Your task to perform on an android device: Go to Google Image 0: 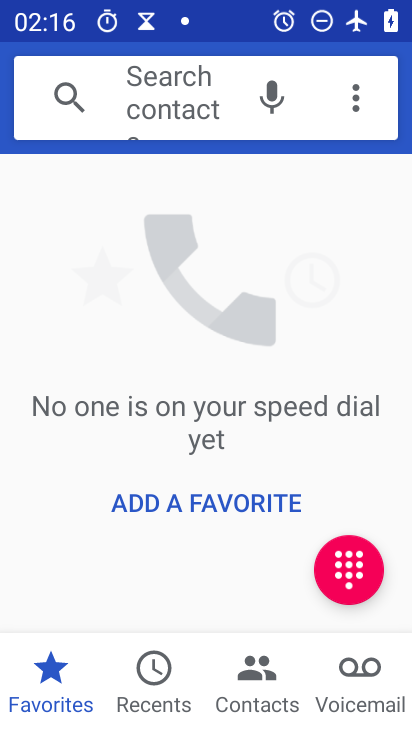
Step 0: press home button
Your task to perform on an android device: Go to Google Image 1: 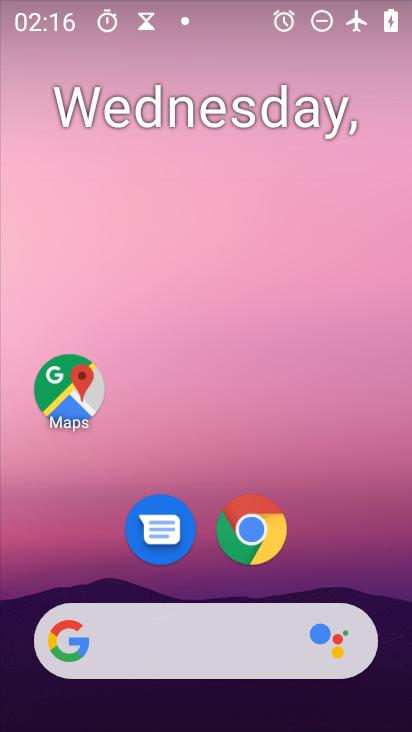
Step 1: drag from (235, 637) to (233, 11)
Your task to perform on an android device: Go to Google Image 2: 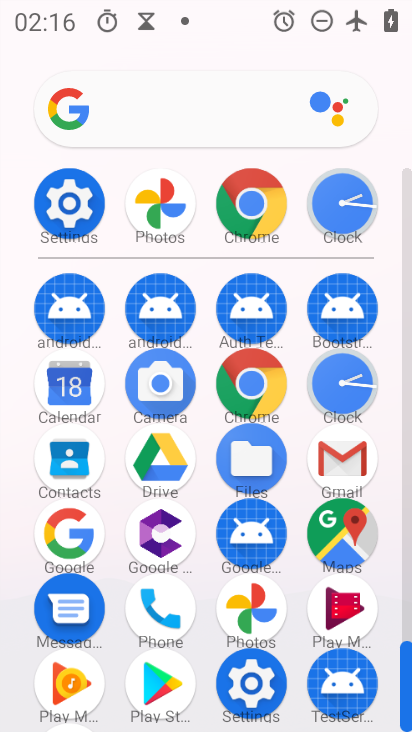
Step 2: click (251, 388)
Your task to perform on an android device: Go to Google Image 3: 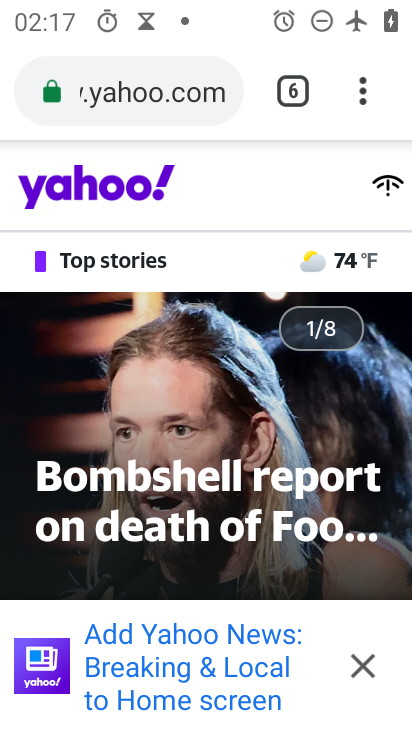
Step 3: drag from (369, 93) to (393, 185)
Your task to perform on an android device: Go to Google Image 4: 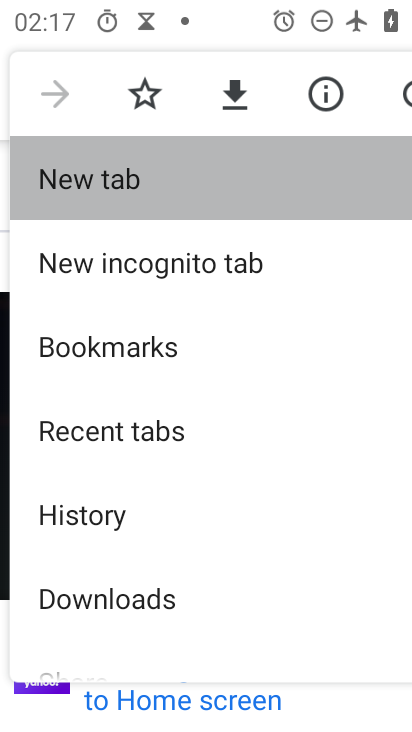
Step 4: press home button
Your task to perform on an android device: Go to Google Image 5: 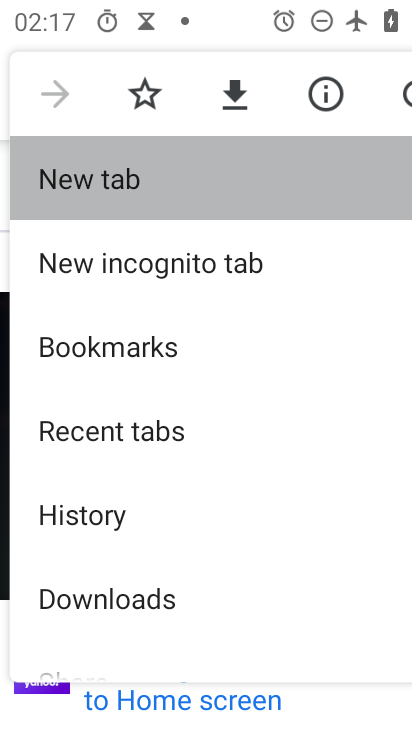
Step 5: drag from (393, 185) to (403, 388)
Your task to perform on an android device: Go to Google Image 6: 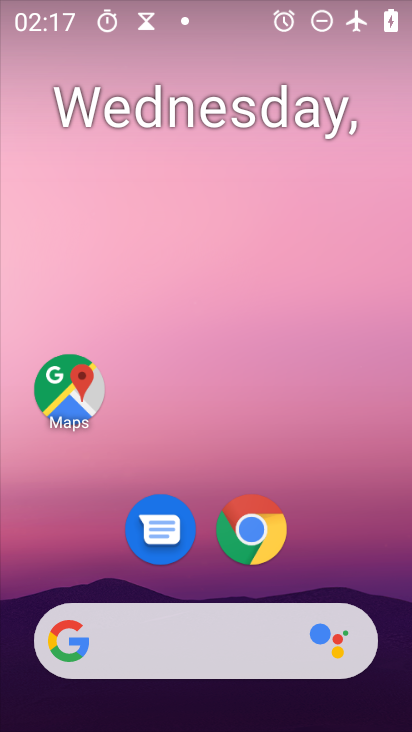
Step 6: drag from (285, 534) to (323, 11)
Your task to perform on an android device: Go to Google Image 7: 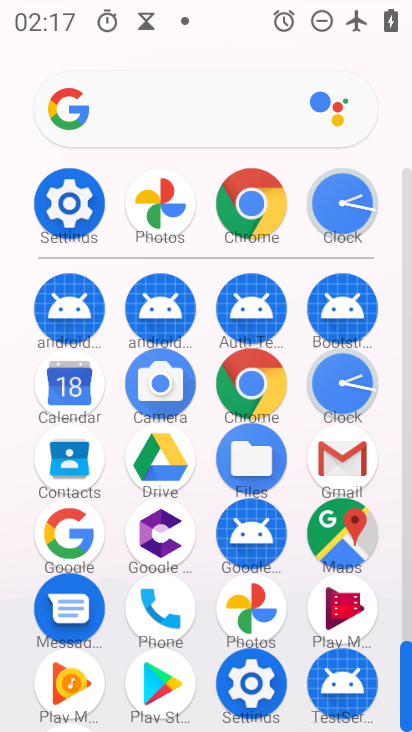
Step 7: click (78, 543)
Your task to perform on an android device: Go to Google Image 8: 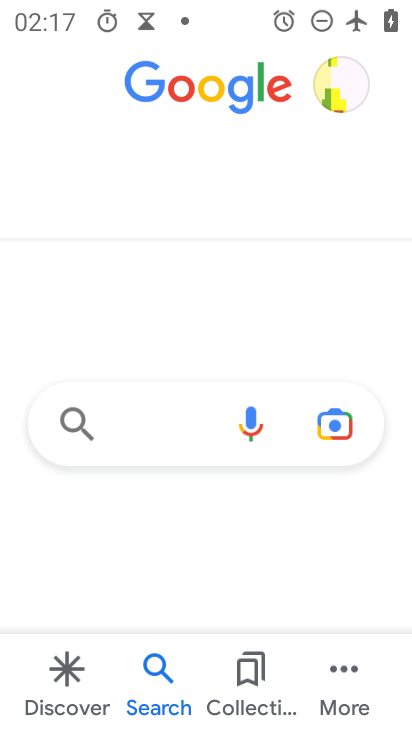
Step 8: task complete